Your task to perform on an android device: View the shopping cart on ebay. Add logitech g933 to the cart on ebay Image 0: 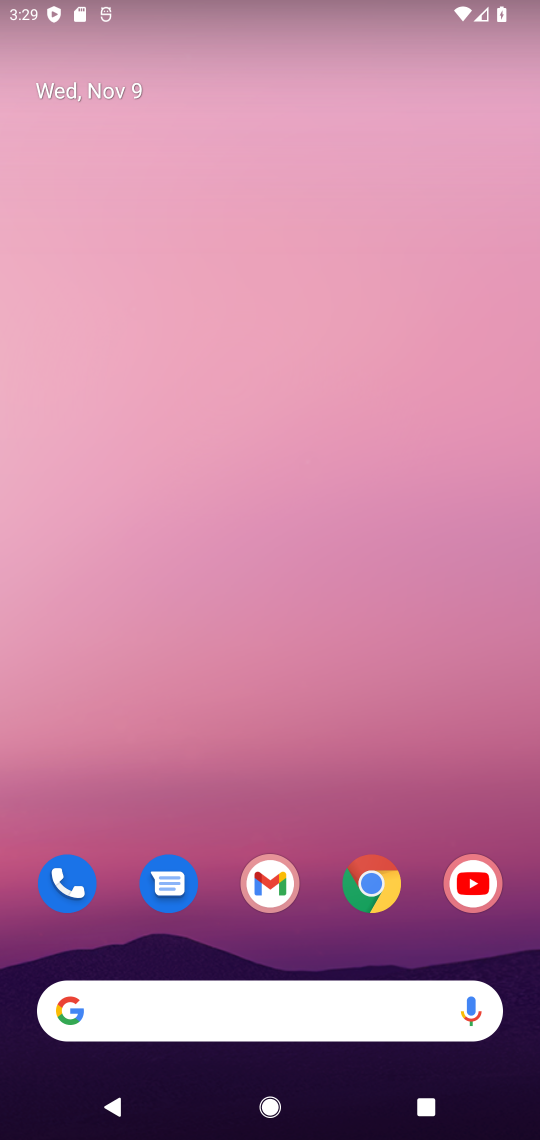
Step 0: click (363, 892)
Your task to perform on an android device: View the shopping cart on ebay. Add logitech g933 to the cart on ebay Image 1: 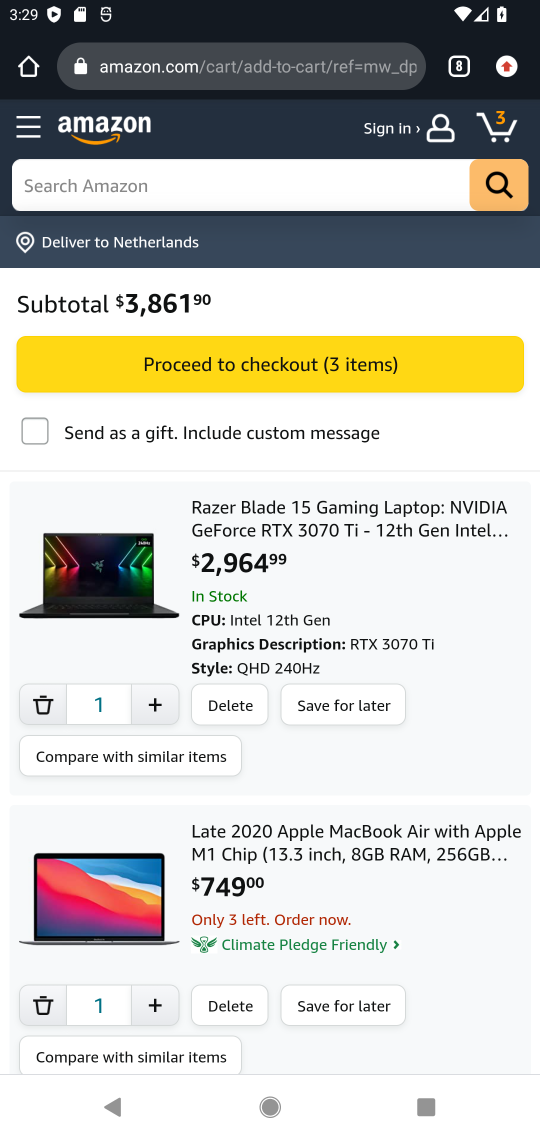
Step 1: click (460, 62)
Your task to perform on an android device: View the shopping cart on ebay. Add logitech g933 to the cart on ebay Image 2: 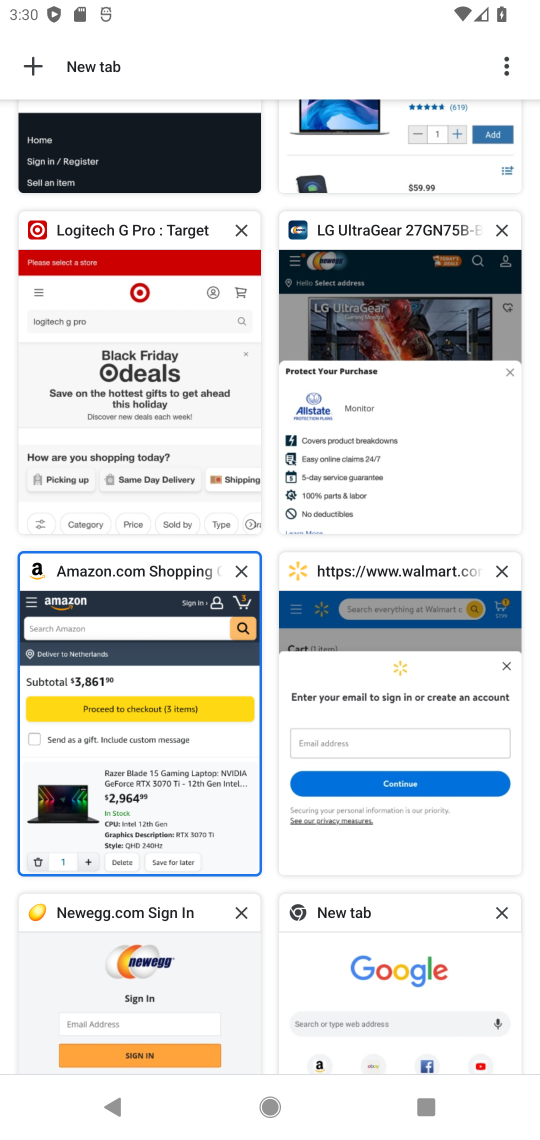
Step 2: drag from (221, 168) to (224, 760)
Your task to perform on an android device: View the shopping cart on ebay. Add logitech g933 to the cart on ebay Image 3: 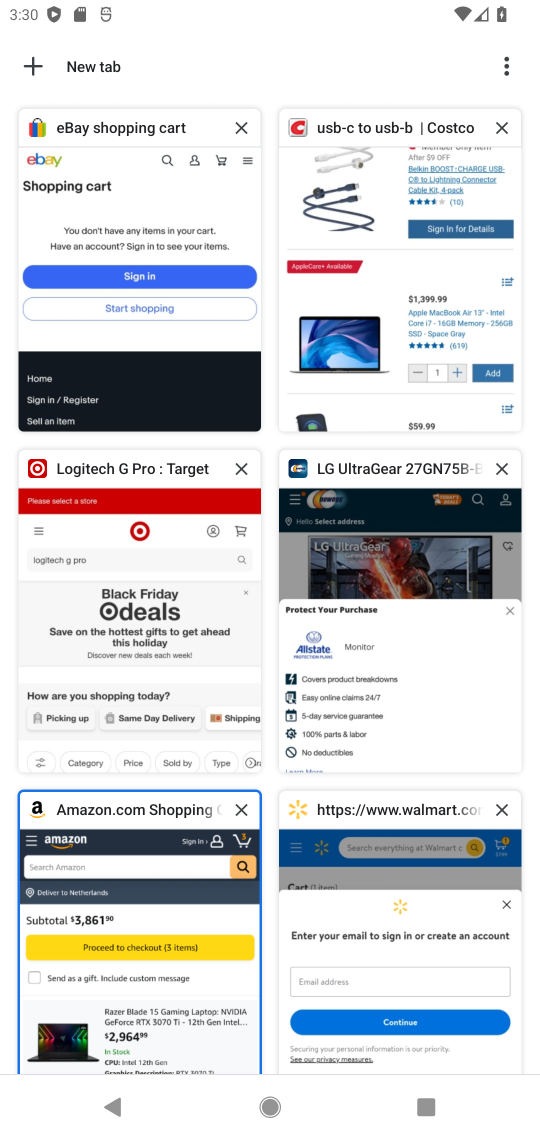
Step 3: click (180, 276)
Your task to perform on an android device: View the shopping cart on ebay. Add logitech g933 to the cart on ebay Image 4: 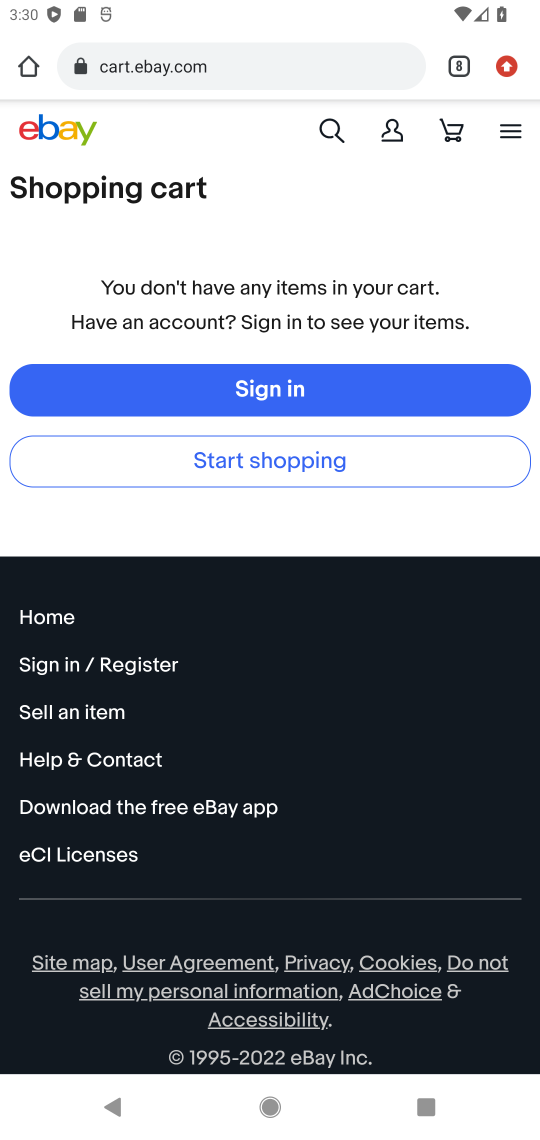
Step 4: click (336, 127)
Your task to perform on an android device: View the shopping cart on ebay. Add logitech g933 to the cart on ebay Image 5: 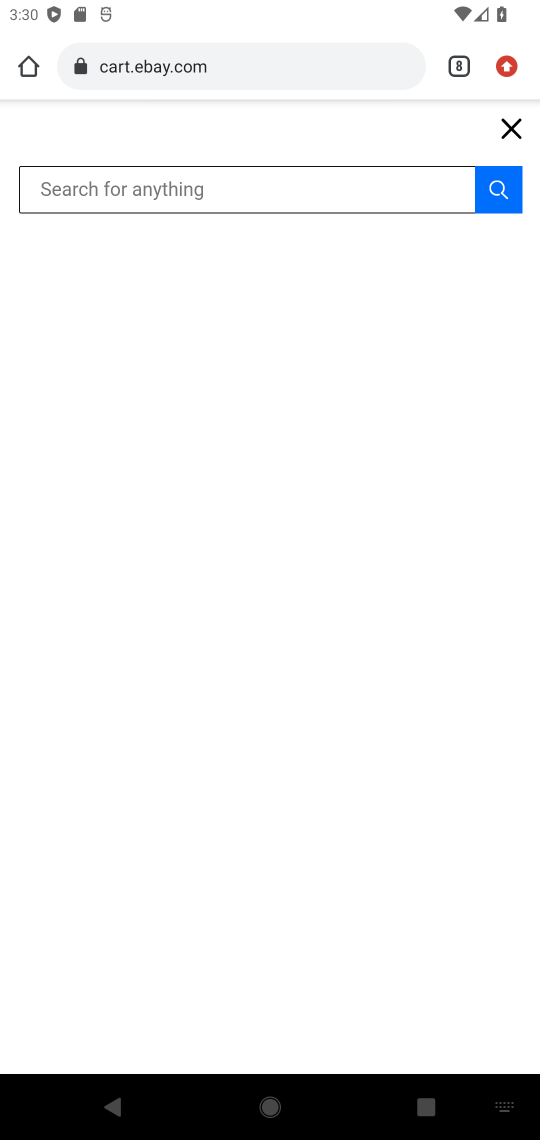
Step 5: type "logitech g933"
Your task to perform on an android device: View the shopping cart on ebay. Add logitech g933 to the cart on ebay Image 6: 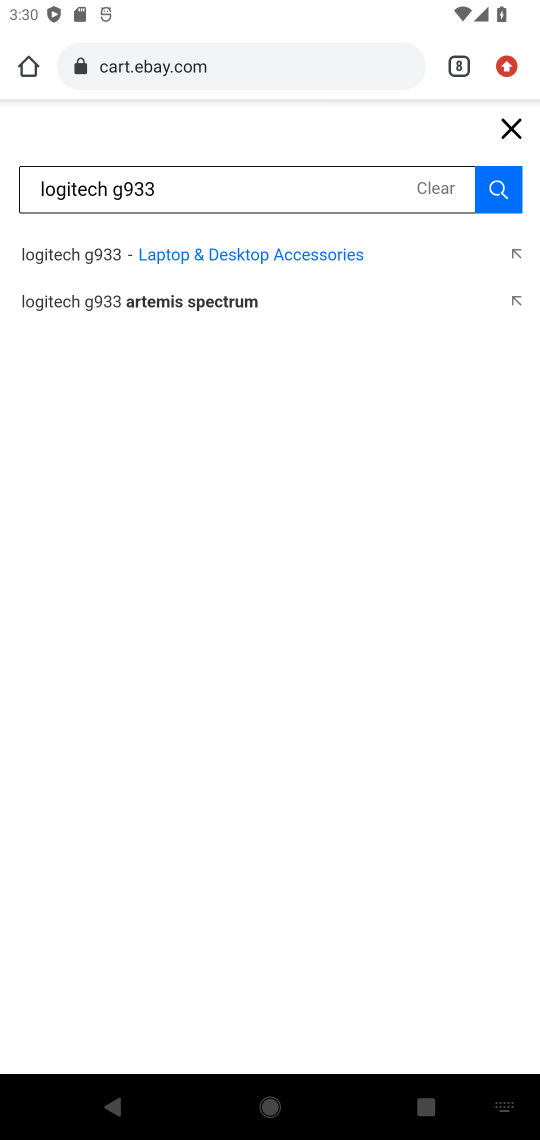
Step 6: click (84, 246)
Your task to perform on an android device: View the shopping cart on ebay. Add logitech g933 to the cart on ebay Image 7: 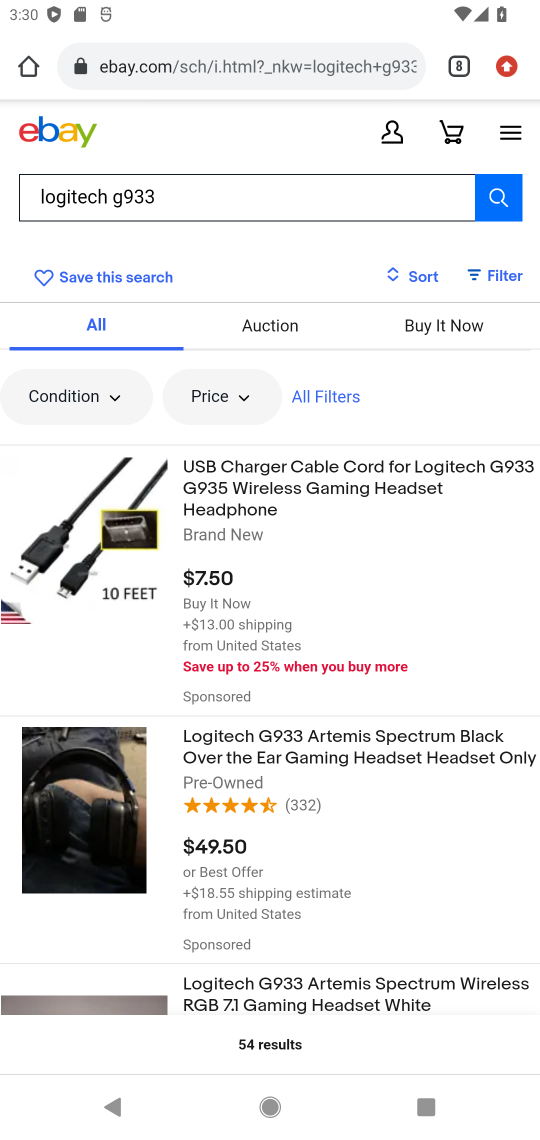
Step 7: click (374, 734)
Your task to perform on an android device: View the shopping cart on ebay. Add logitech g933 to the cart on ebay Image 8: 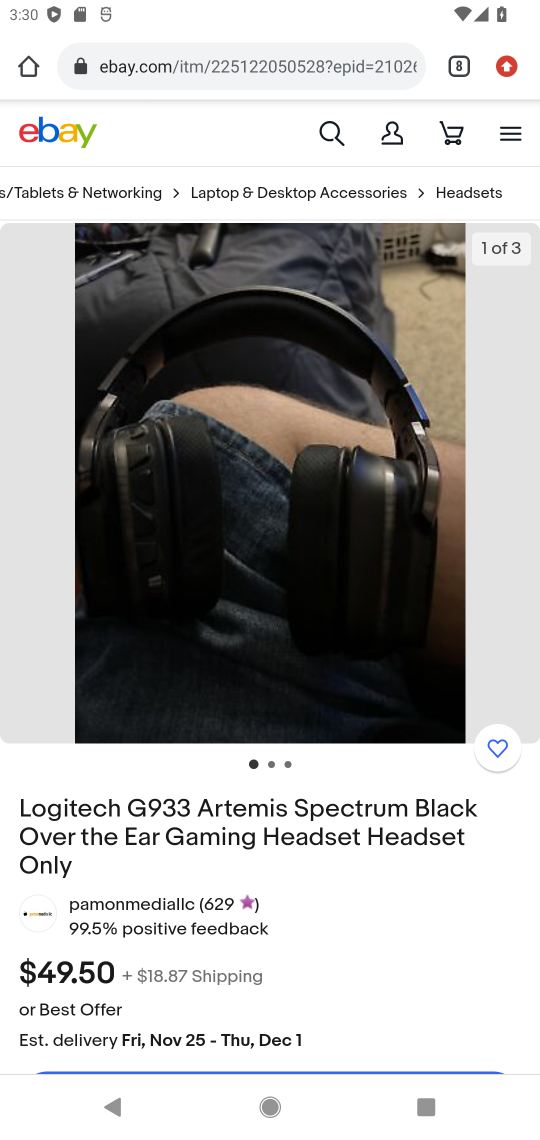
Step 8: drag from (338, 967) to (372, 364)
Your task to perform on an android device: View the shopping cart on ebay. Add logitech g933 to the cart on ebay Image 9: 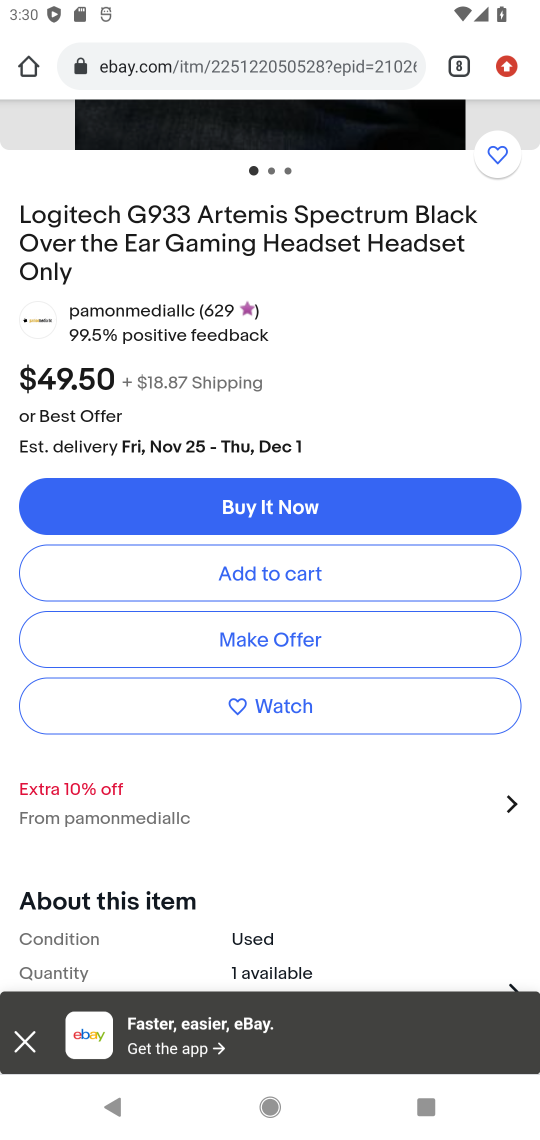
Step 9: click (283, 574)
Your task to perform on an android device: View the shopping cart on ebay. Add logitech g933 to the cart on ebay Image 10: 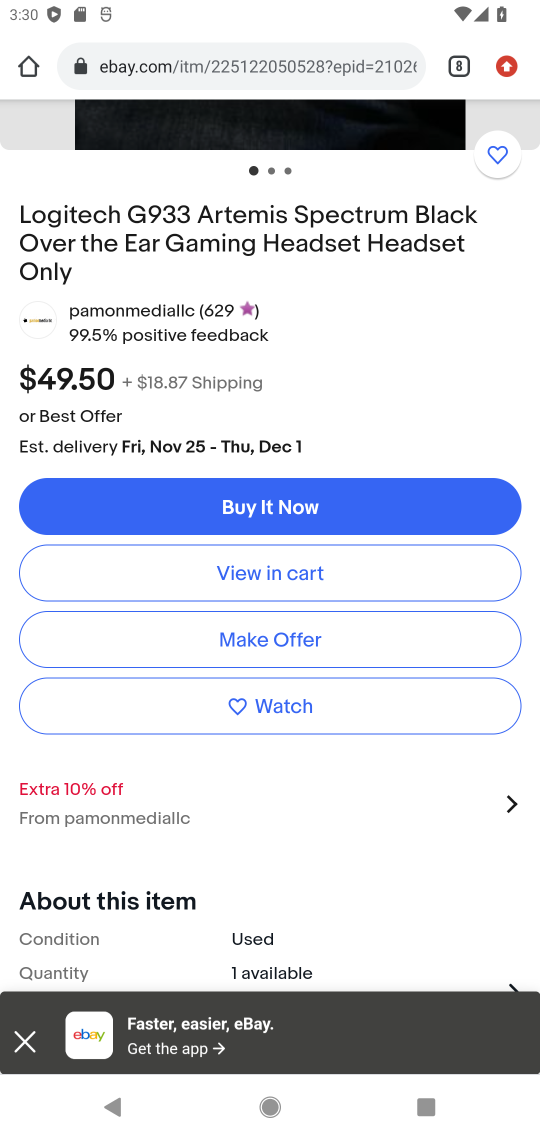
Step 10: task complete